Your task to perform on an android device: What's the weather today? Image 0: 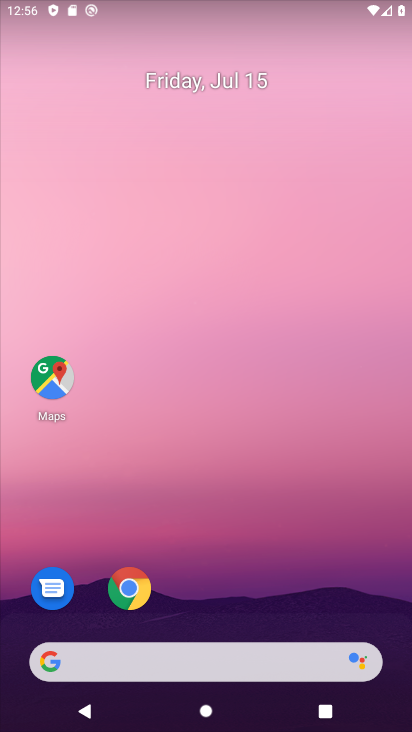
Step 0: drag from (237, 629) to (219, 141)
Your task to perform on an android device: What's the weather today? Image 1: 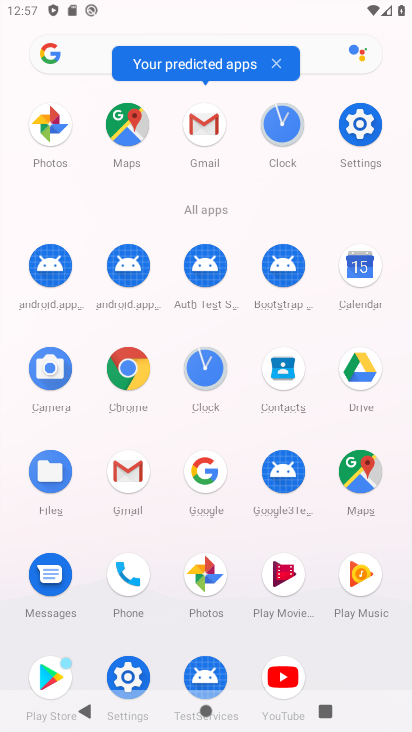
Step 1: click (211, 470)
Your task to perform on an android device: What's the weather today? Image 2: 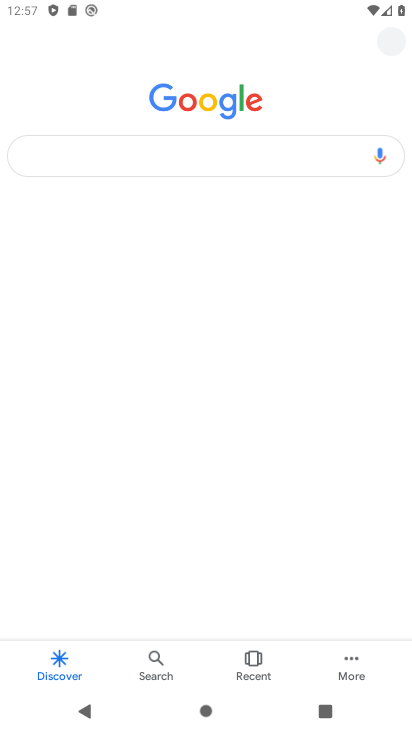
Step 2: click (136, 164)
Your task to perform on an android device: What's the weather today? Image 3: 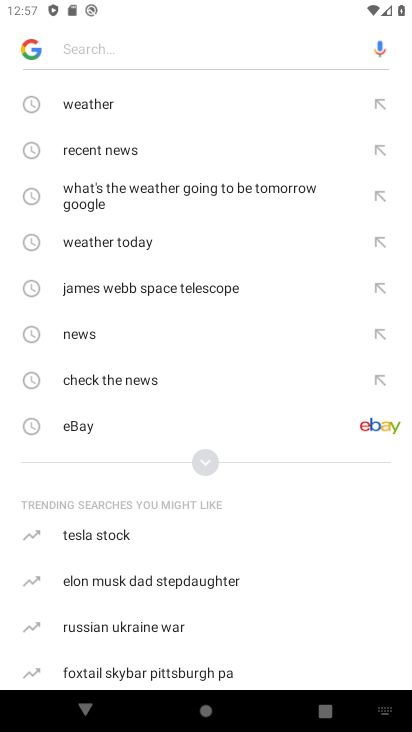
Step 3: type "weather today"
Your task to perform on an android device: What's the weather today? Image 4: 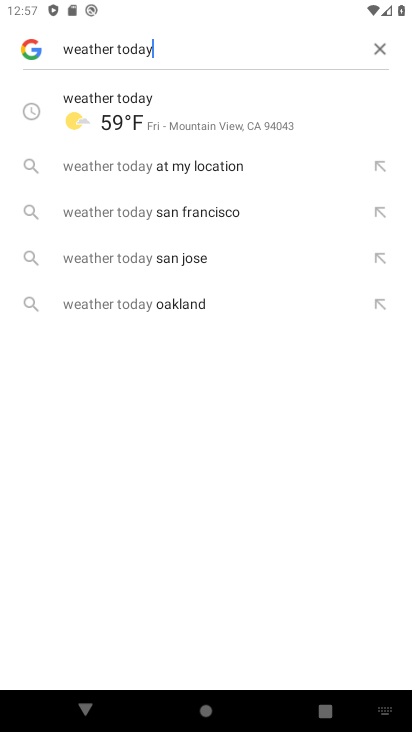
Step 4: click (152, 112)
Your task to perform on an android device: What's the weather today? Image 5: 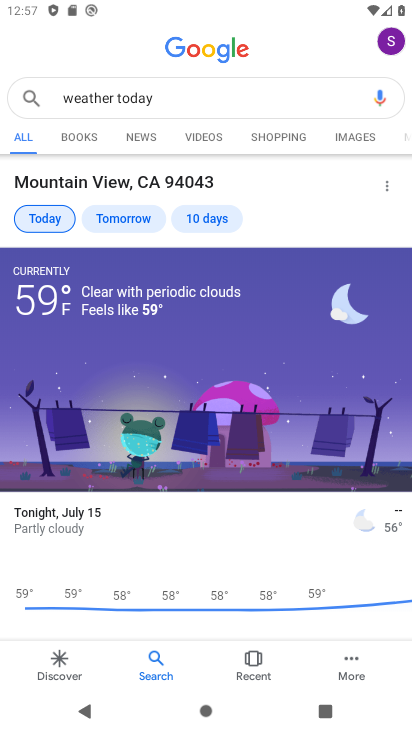
Step 5: task complete